Your task to perform on an android device: visit the assistant section in the google photos Image 0: 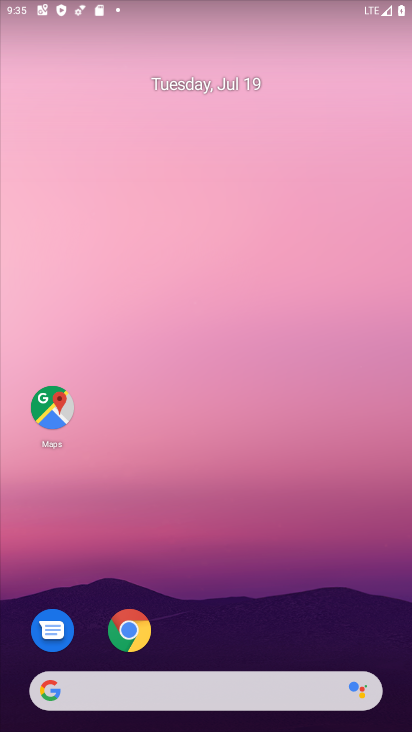
Step 0: drag from (256, 663) to (314, 263)
Your task to perform on an android device: visit the assistant section in the google photos Image 1: 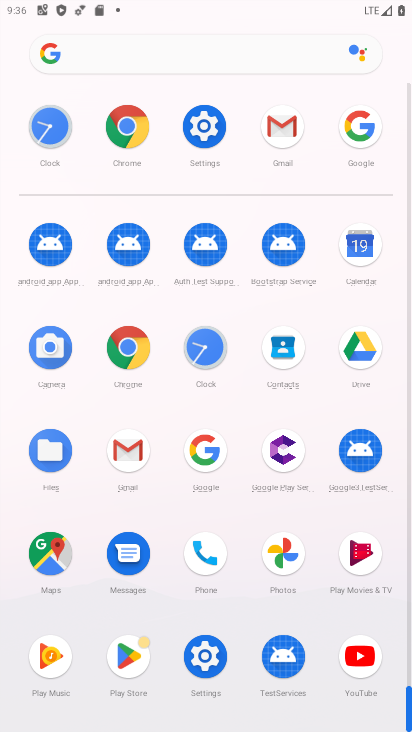
Step 1: click (297, 558)
Your task to perform on an android device: visit the assistant section in the google photos Image 2: 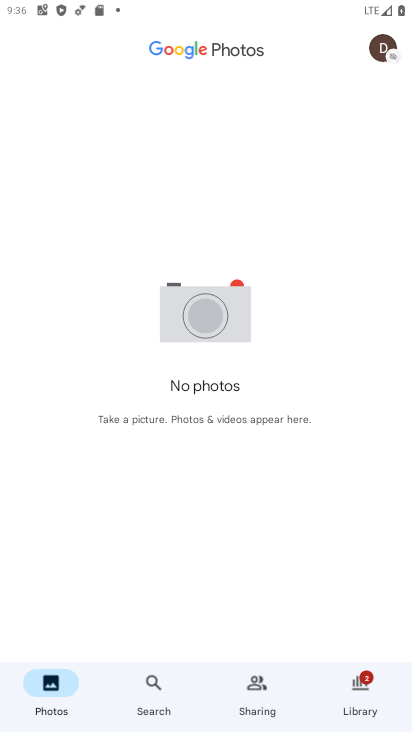
Step 2: click (384, 45)
Your task to perform on an android device: visit the assistant section in the google photos Image 3: 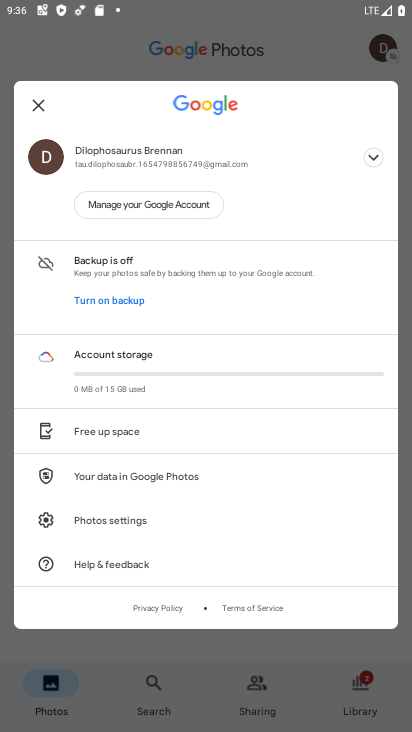
Step 3: task complete